Your task to perform on an android device: allow notifications from all sites in the chrome app Image 0: 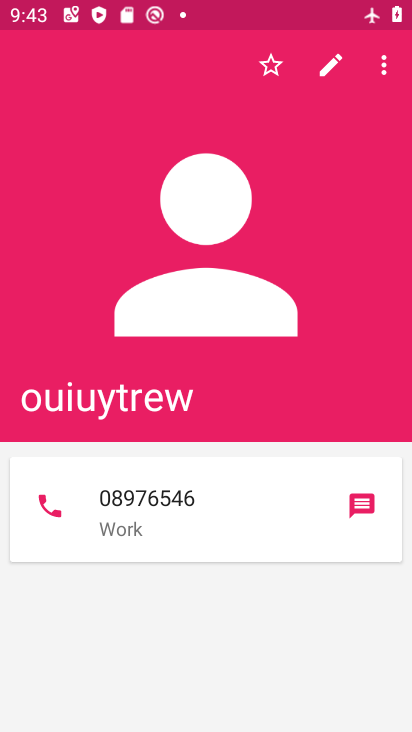
Step 0: press home button
Your task to perform on an android device: allow notifications from all sites in the chrome app Image 1: 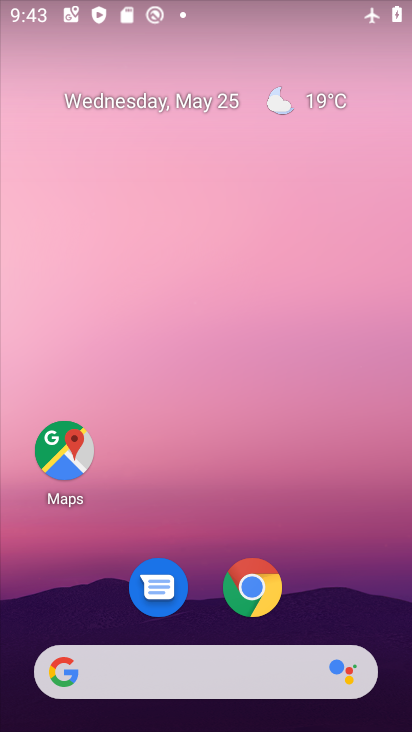
Step 1: click (251, 587)
Your task to perform on an android device: allow notifications from all sites in the chrome app Image 2: 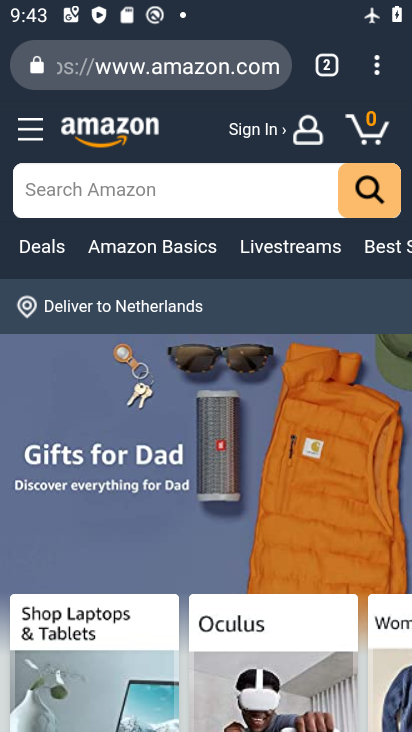
Step 2: click (375, 76)
Your task to perform on an android device: allow notifications from all sites in the chrome app Image 3: 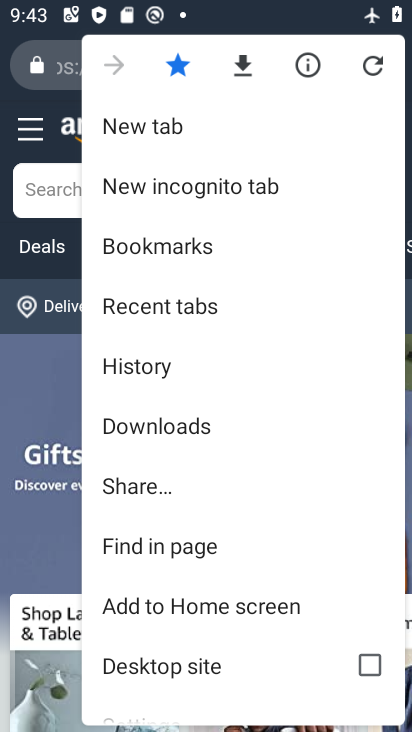
Step 3: drag from (305, 559) to (273, 104)
Your task to perform on an android device: allow notifications from all sites in the chrome app Image 4: 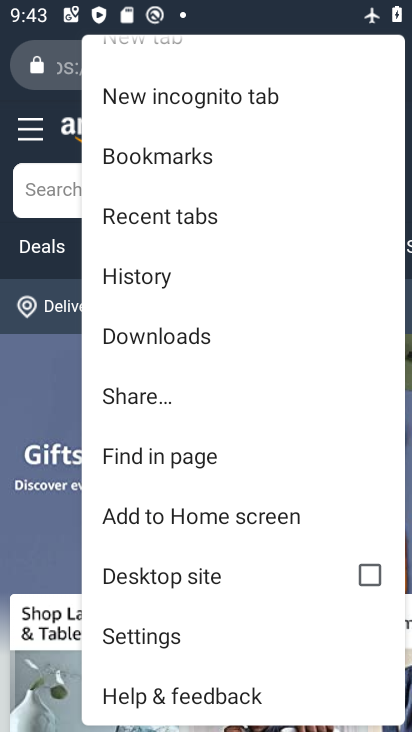
Step 4: click (159, 642)
Your task to perform on an android device: allow notifications from all sites in the chrome app Image 5: 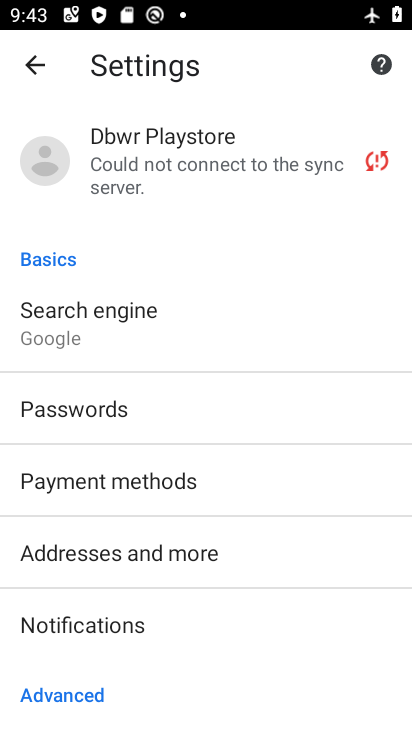
Step 5: drag from (227, 676) to (255, 180)
Your task to perform on an android device: allow notifications from all sites in the chrome app Image 6: 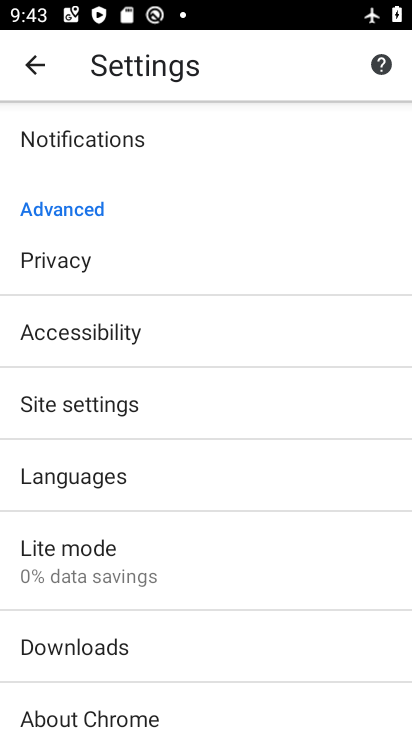
Step 6: click (75, 404)
Your task to perform on an android device: allow notifications from all sites in the chrome app Image 7: 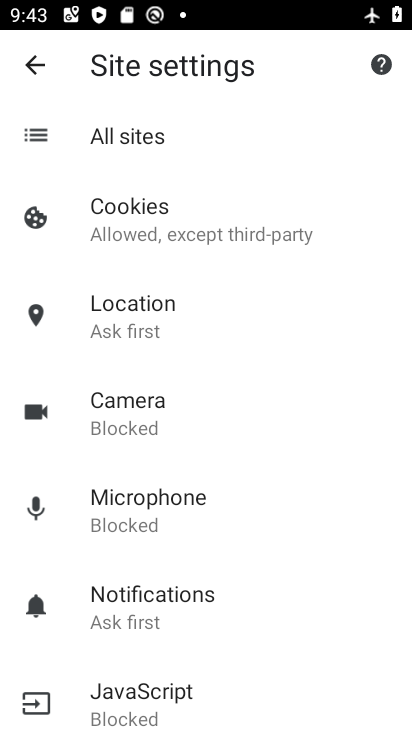
Step 7: click (149, 592)
Your task to perform on an android device: allow notifications from all sites in the chrome app Image 8: 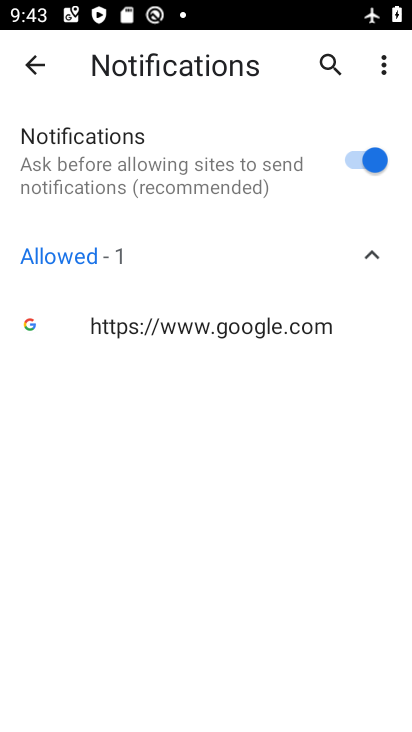
Step 8: task complete